Your task to perform on an android device: Check the news Image 0: 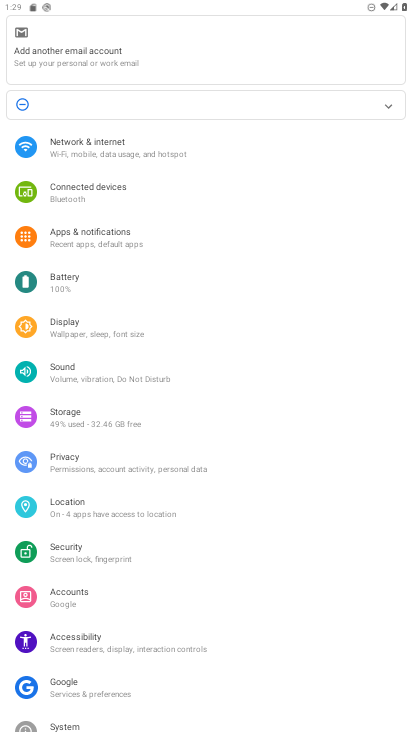
Step 0: press home button
Your task to perform on an android device: Check the news Image 1: 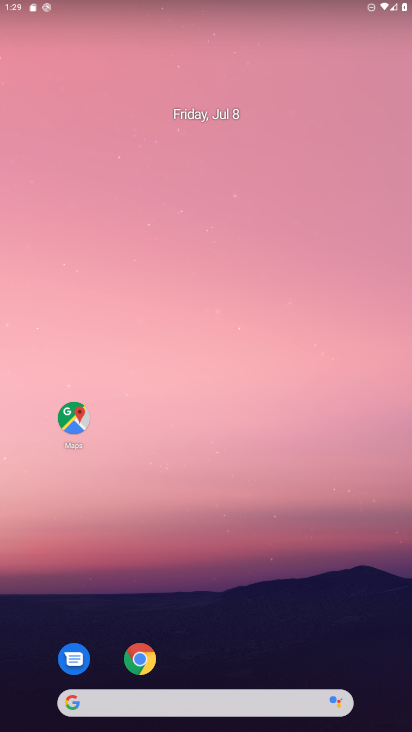
Step 1: drag from (251, 622) to (213, 95)
Your task to perform on an android device: Check the news Image 2: 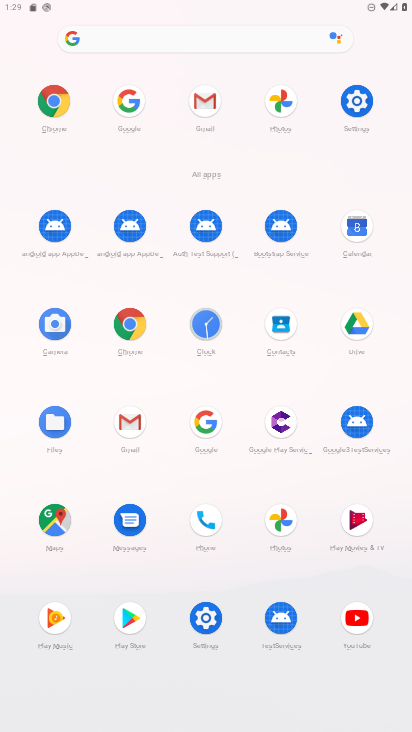
Step 2: click (206, 421)
Your task to perform on an android device: Check the news Image 3: 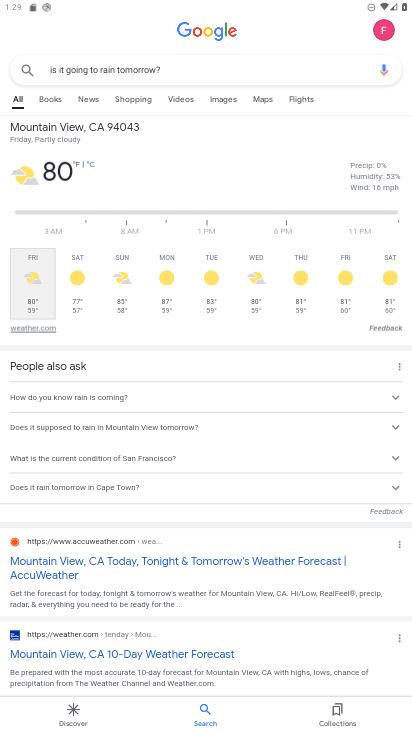
Step 3: click (198, 72)
Your task to perform on an android device: Check the news Image 4: 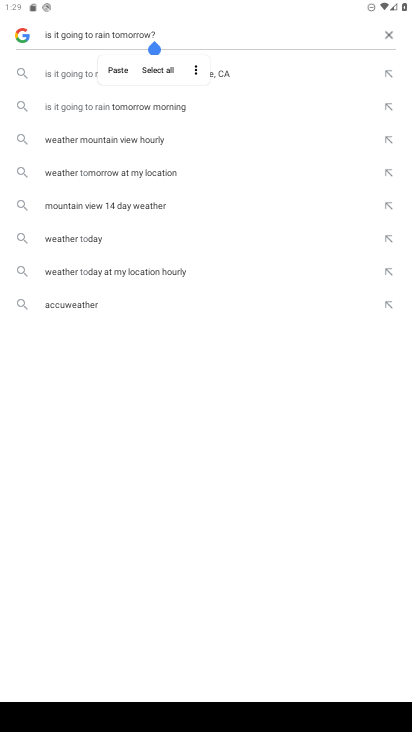
Step 4: click (387, 36)
Your task to perform on an android device: Check the news Image 5: 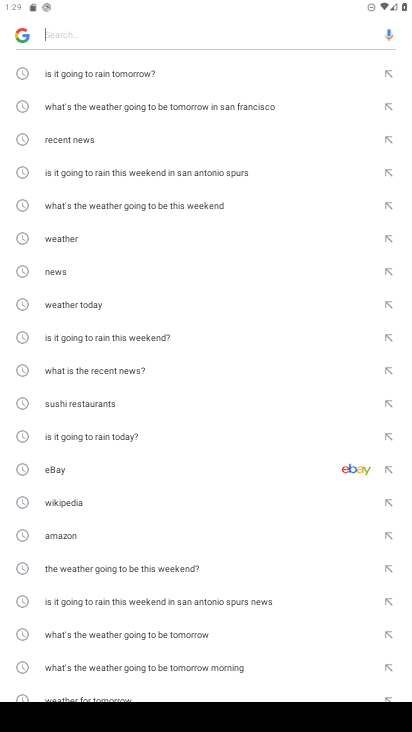
Step 5: type "news"
Your task to perform on an android device: Check the news Image 6: 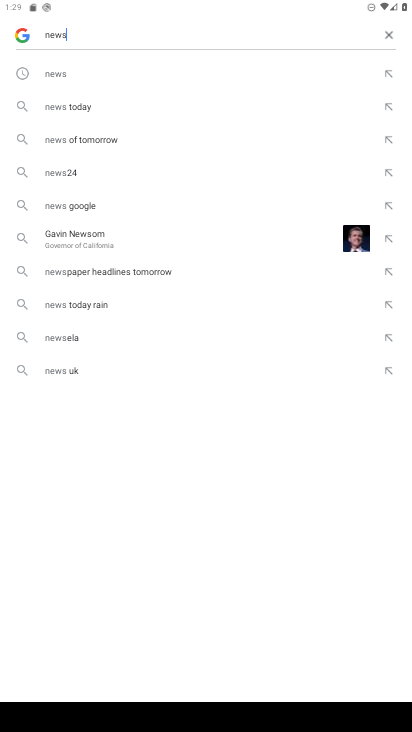
Step 6: click (56, 75)
Your task to perform on an android device: Check the news Image 7: 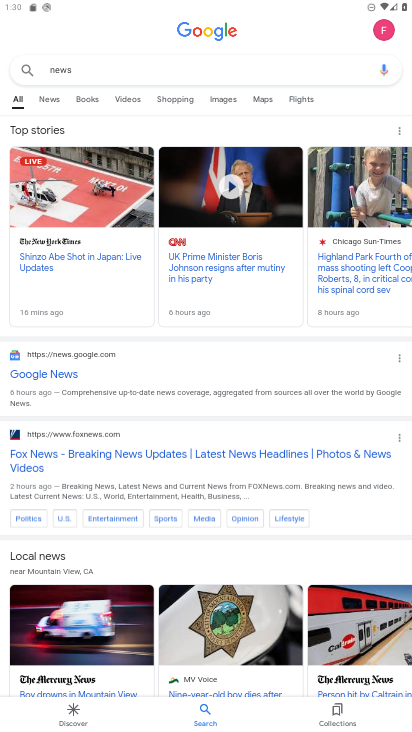
Step 7: click (93, 217)
Your task to perform on an android device: Check the news Image 8: 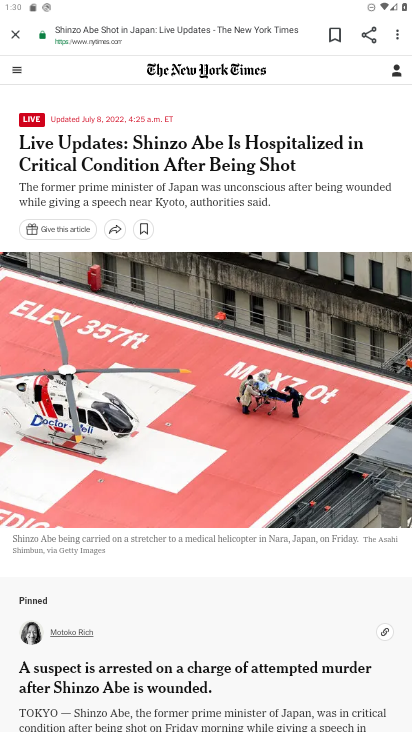
Step 8: task complete